Your task to perform on an android device: Is it going to rain tomorrow? Image 0: 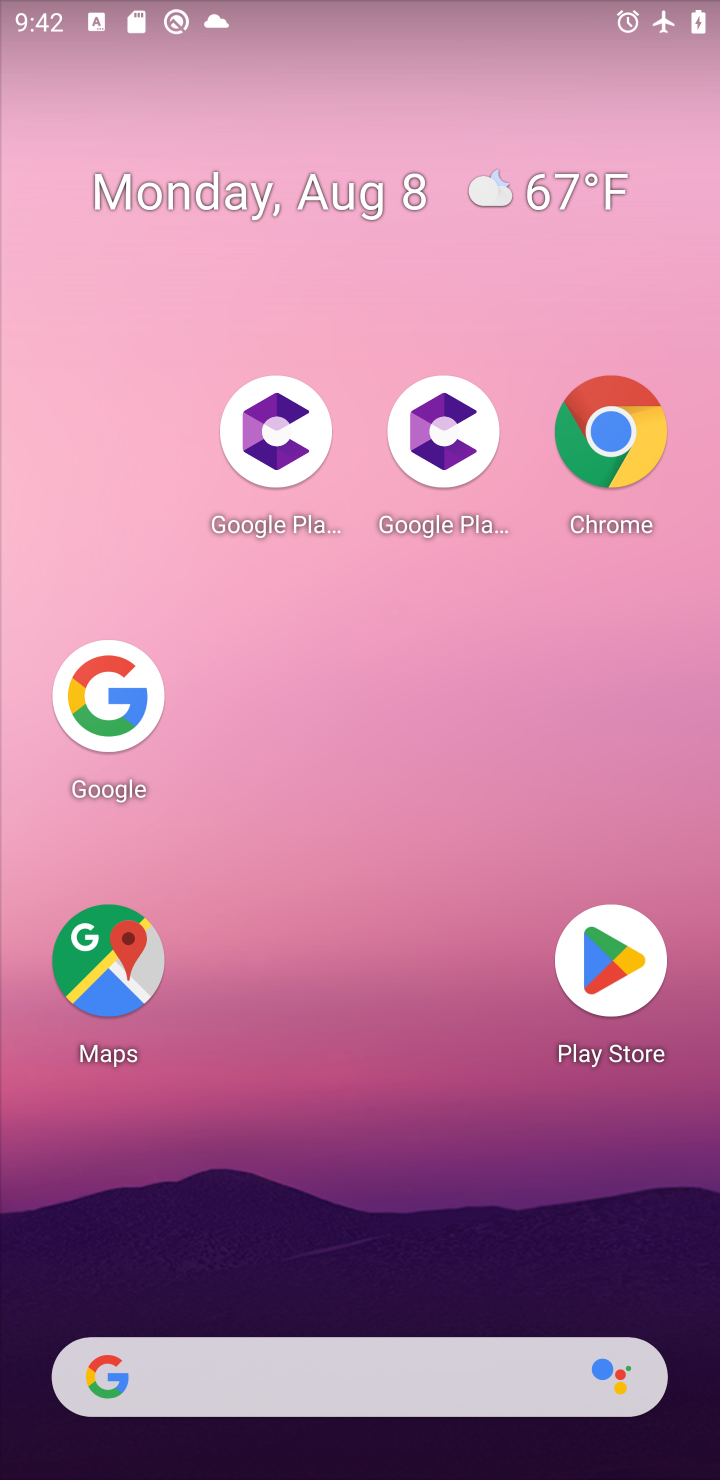
Step 0: click (568, 183)
Your task to perform on an android device: Is it going to rain tomorrow? Image 1: 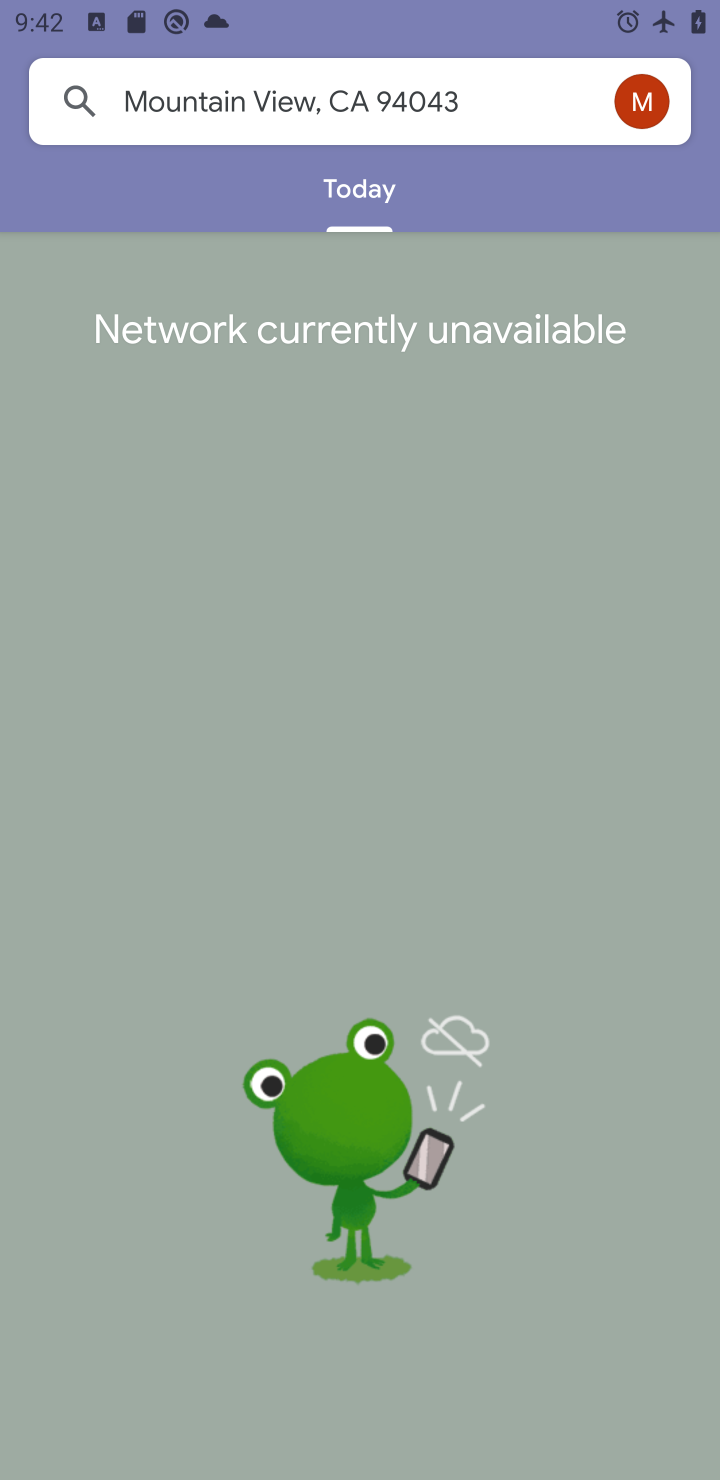
Step 1: drag from (548, 27) to (538, 608)
Your task to perform on an android device: Is it going to rain tomorrow? Image 2: 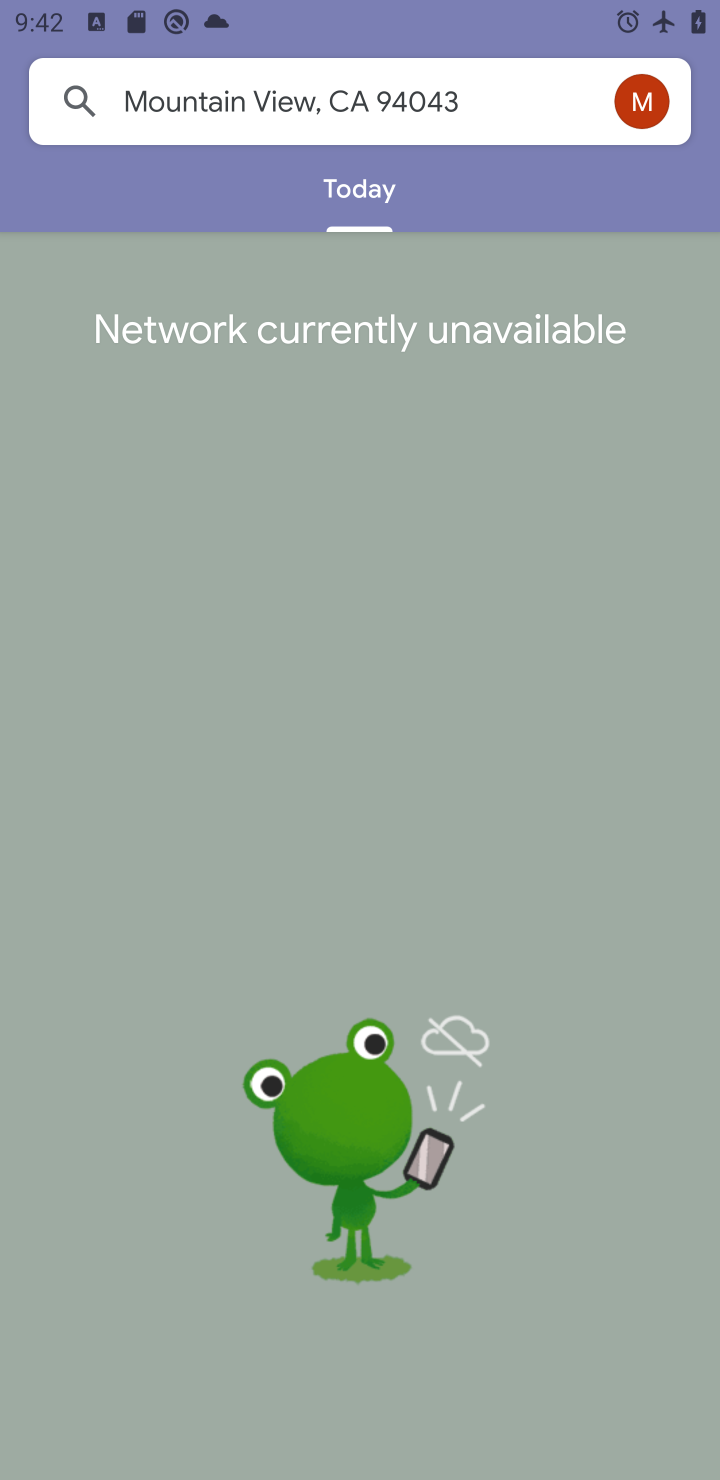
Step 2: drag from (513, 21) to (503, 876)
Your task to perform on an android device: Is it going to rain tomorrow? Image 3: 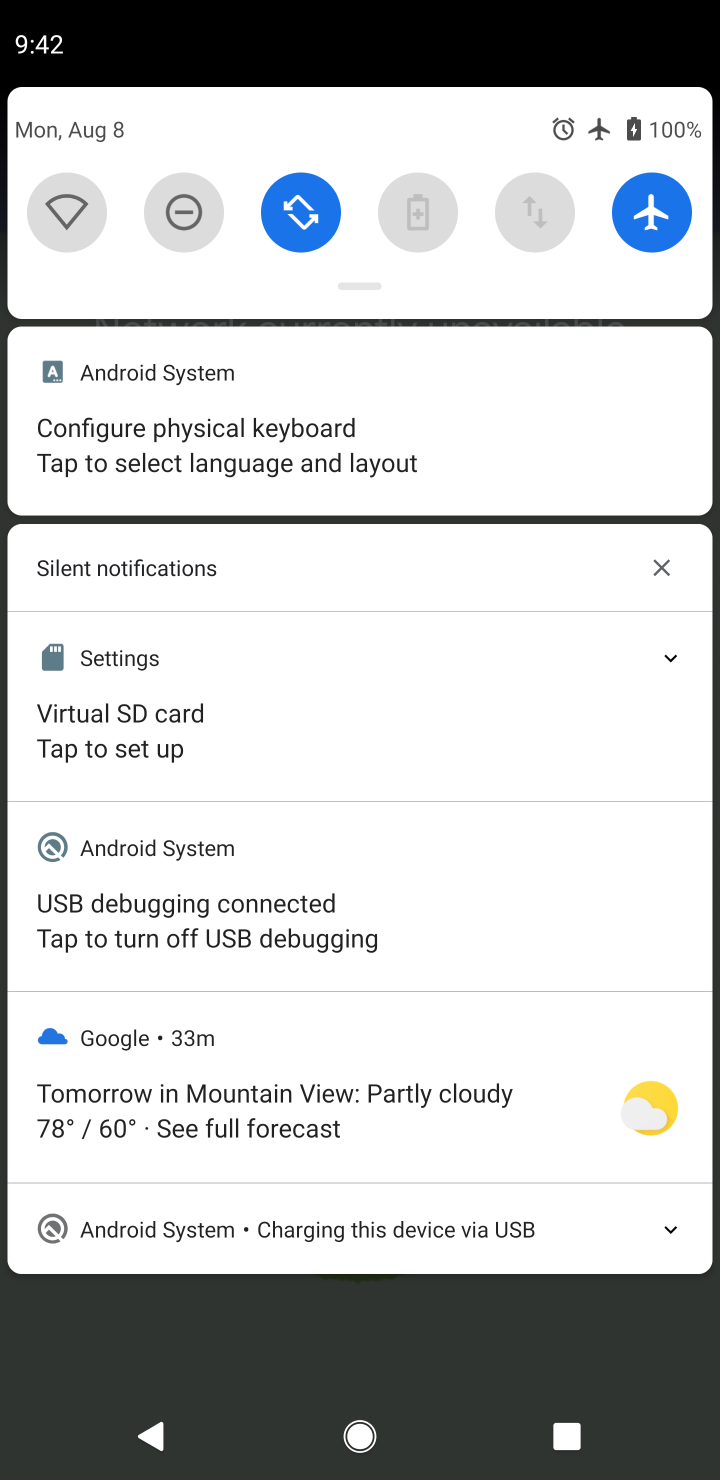
Step 3: click (674, 208)
Your task to perform on an android device: Is it going to rain tomorrow? Image 4: 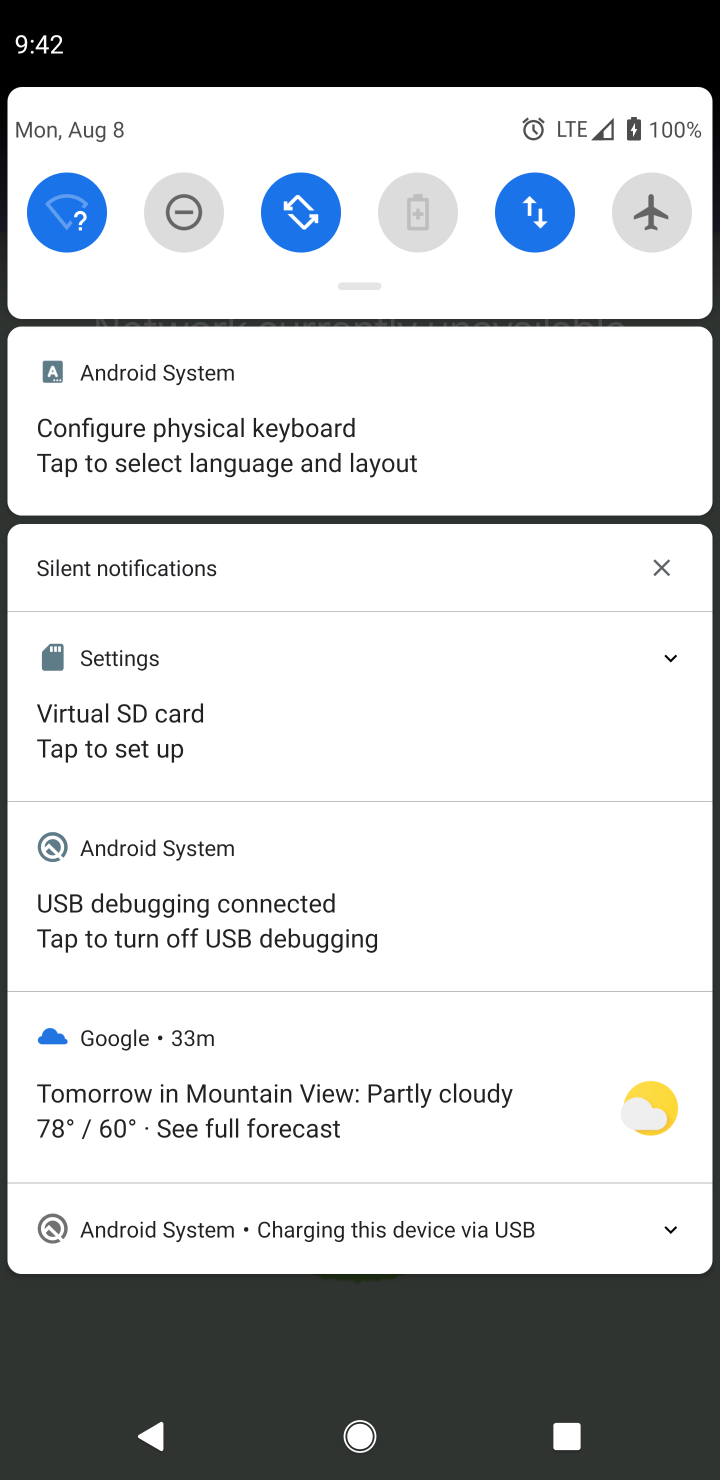
Step 4: task complete